Your task to perform on an android device: delete the emails in spam in the gmail app Image 0: 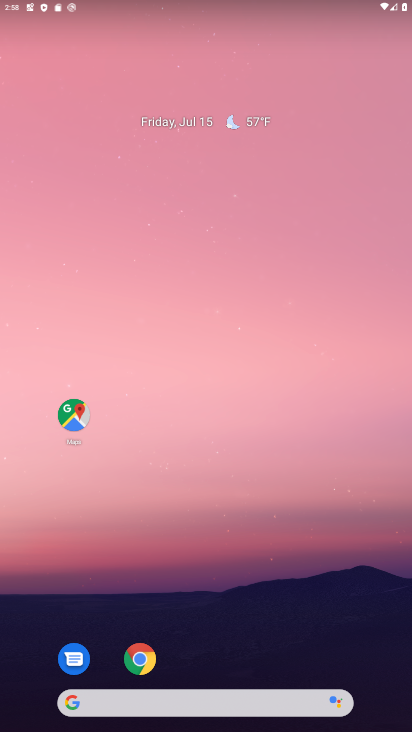
Step 0: drag from (240, 607) to (302, 0)
Your task to perform on an android device: delete the emails in spam in the gmail app Image 1: 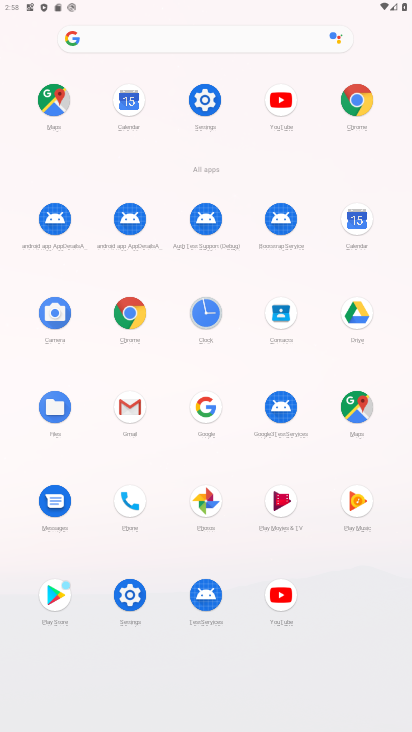
Step 1: click (131, 418)
Your task to perform on an android device: delete the emails in spam in the gmail app Image 2: 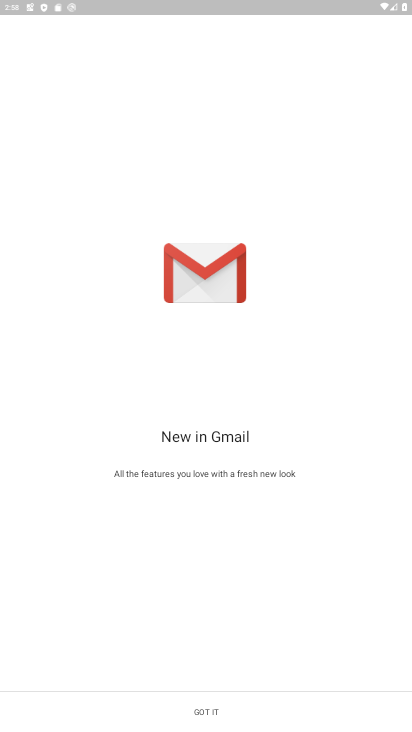
Step 2: click (268, 714)
Your task to perform on an android device: delete the emails in spam in the gmail app Image 3: 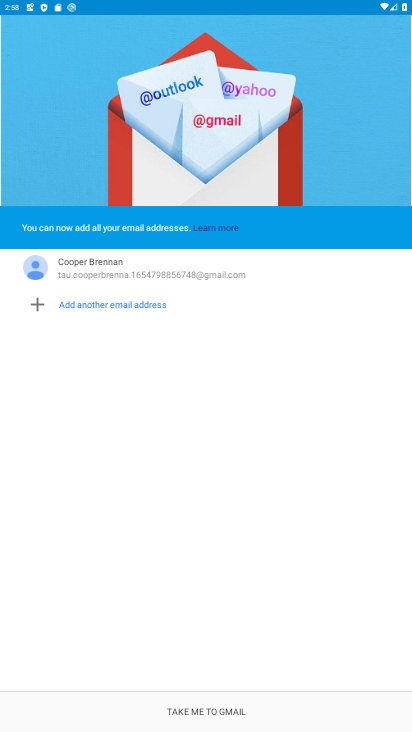
Step 3: click (258, 708)
Your task to perform on an android device: delete the emails in spam in the gmail app Image 4: 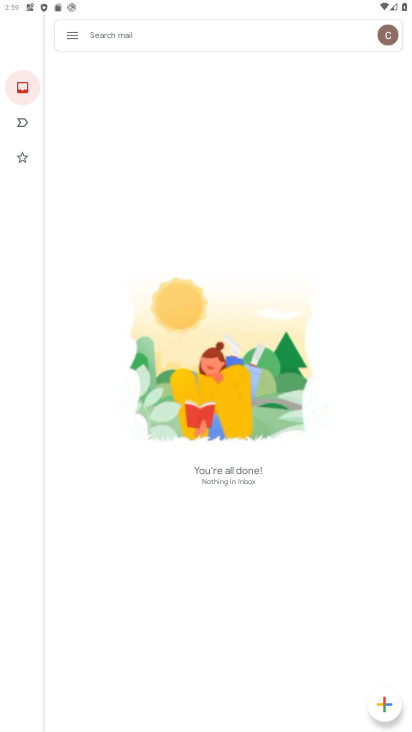
Step 4: click (69, 30)
Your task to perform on an android device: delete the emails in spam in the gmail app Image 5: 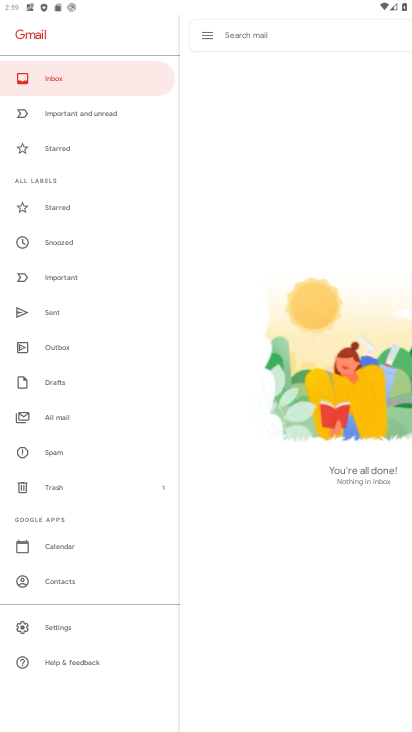
Step 5: click (67, 457)
Your task to perform on an android device: delete the emails in spam in the gmail app Image 6: 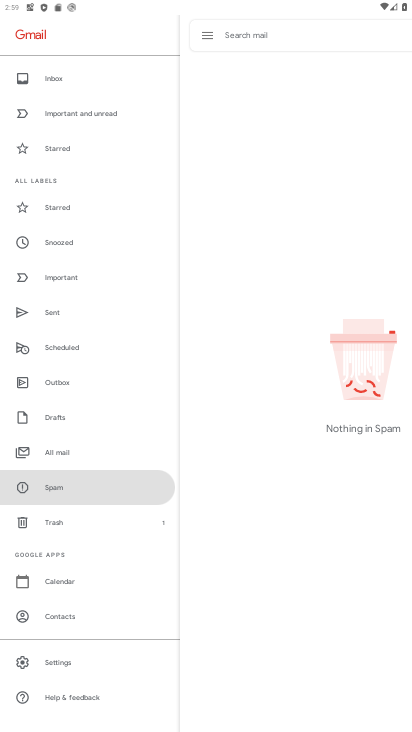
Step 6: task complete